Your task to perform on an android device: see sites visited before in the chrome app Image 0: 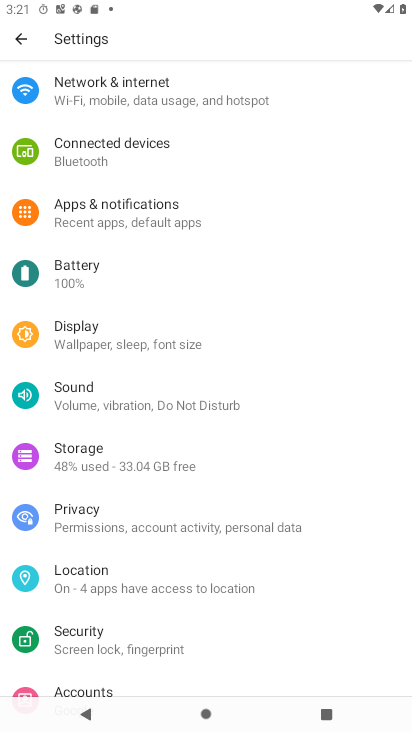
Step 0: press home button
Your task to perform on an android device: see sites visited before in the chrome app Image 1: 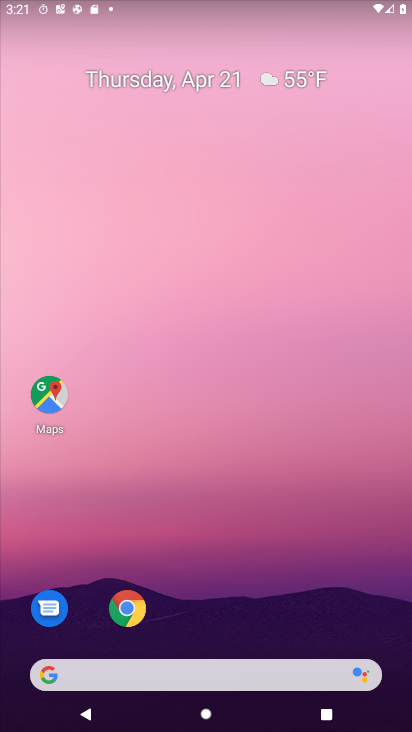
Step 1: click (121, 607)
Your task to perform on an android device: see sites visited before in the chrome app Image 2: 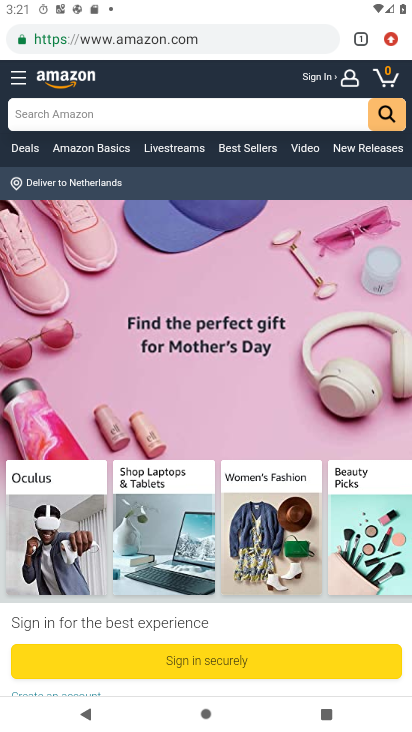
Step 2: click (388, 40)
Your task to perform on an android device: see sites visited before in the chrome app Image 3: 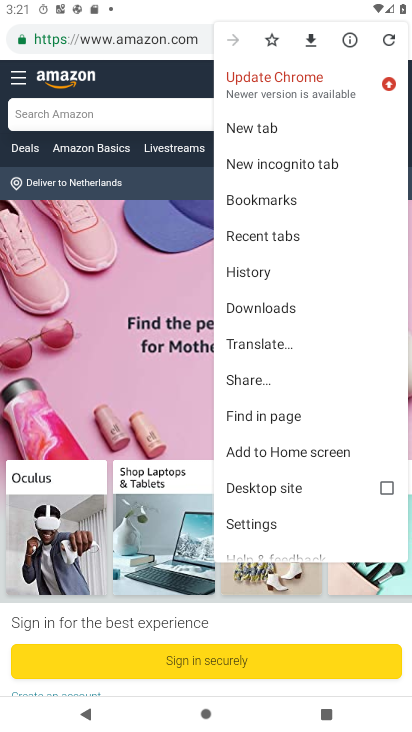
Step 3: click (249, 278)
Your task to perform on an android device: see sites visited before in the chrome app Image 4: 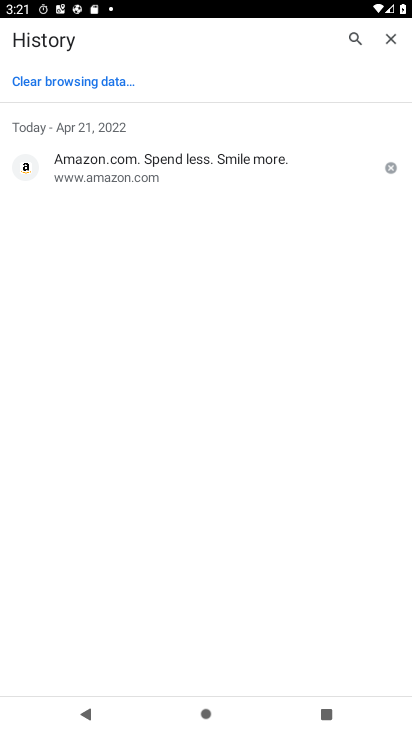
Step 4: task complete